Your task to perform on an android device: add a contact Image 0: 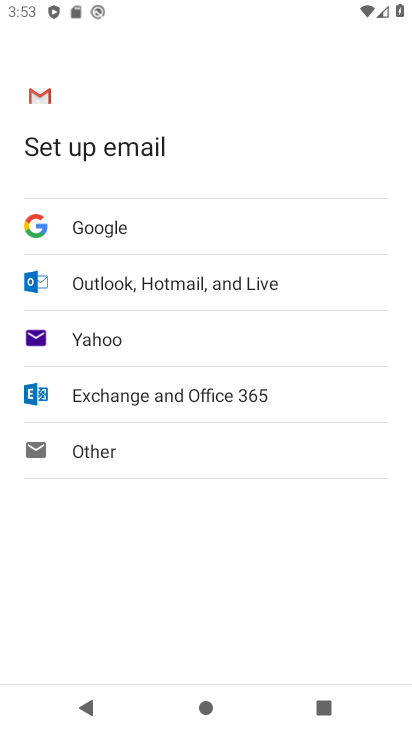
Step 0: press home button
Your task to perform on an android device: add a contact Image 1: 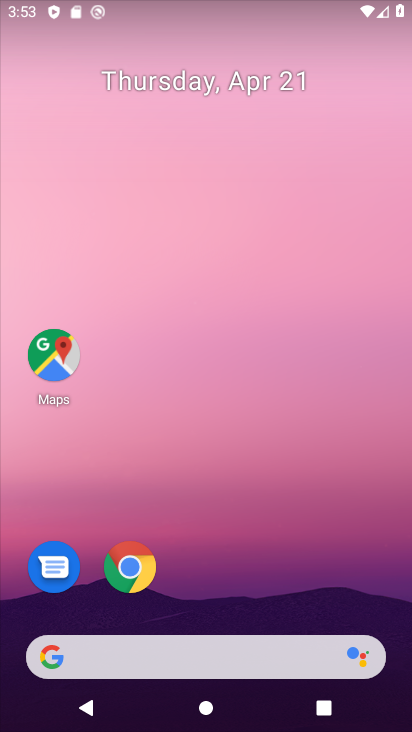
Step 1: drag from (288, 558) to (298, 89)
Your task to perform on an android device: add a contact Image 2: 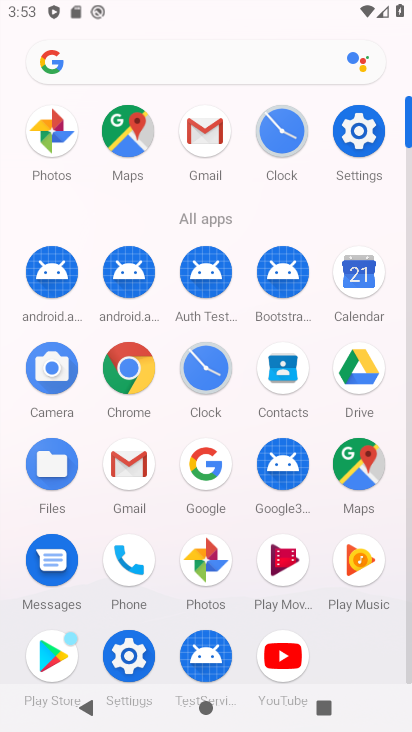
Step 2: drag from (356, 606) to (339, 256)
Your task to perform on an android device: add a contact Image 3: 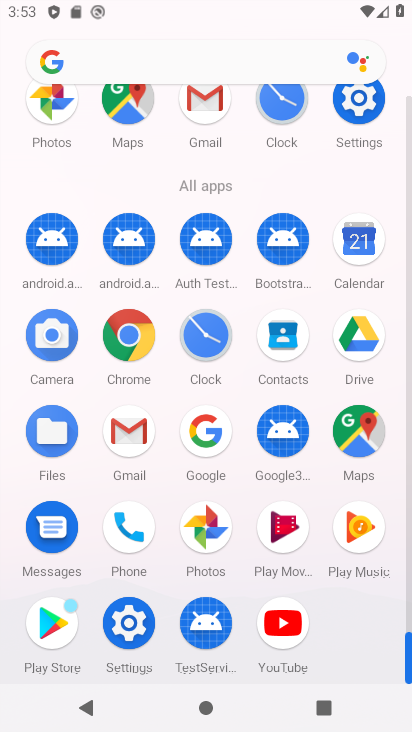
Step 3: click (274, 330)
Your task to perform on an android device: add a contact Image 4: 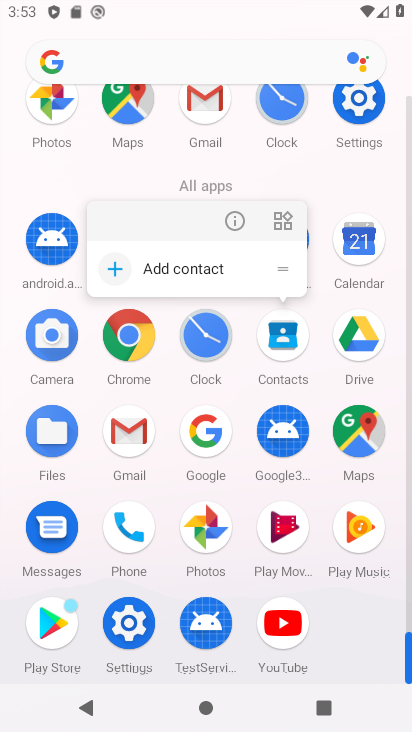
Step 4: click (282, 328)
Your task to perform on an android device: add a contact Image 5: 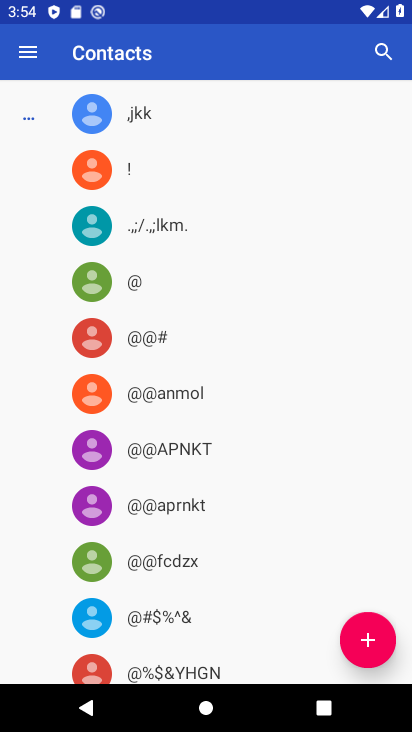
Step 5: click (361, 647)
Your task to perform on an android device: add a contact Image 6: 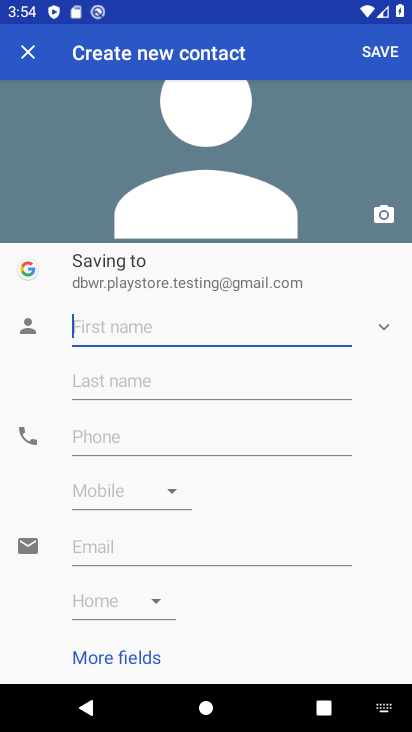
Step 6: click (141, 322)
Your task to perform on an android device: add a contact Image 7: 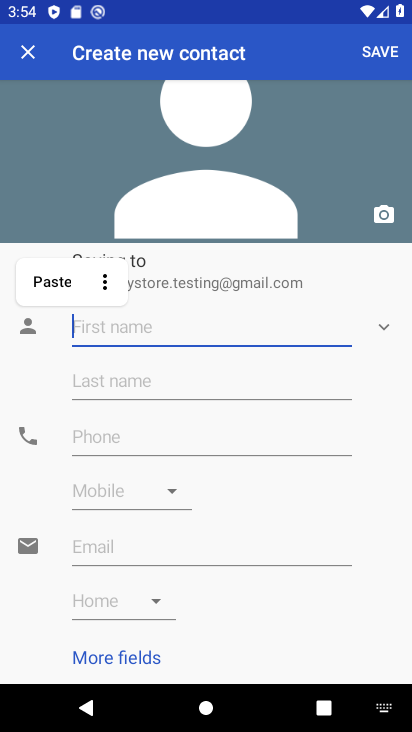
Step 7: type "dfghjk"
Your task to perform on an android device: add a contact Image 8: 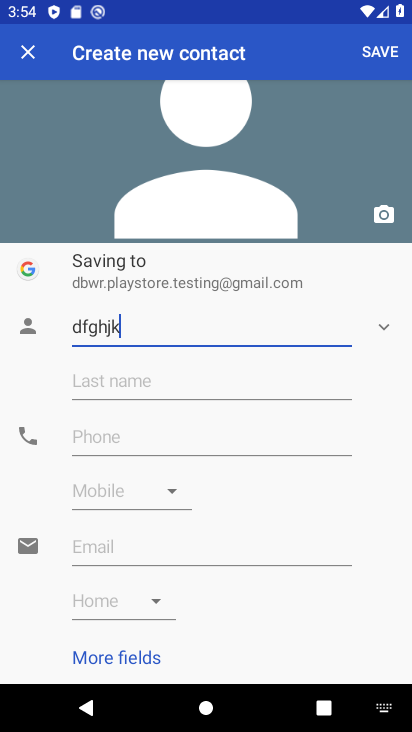
Step 8: click (102, 441)
Your task to perform on an android device: add a contact Image 9: 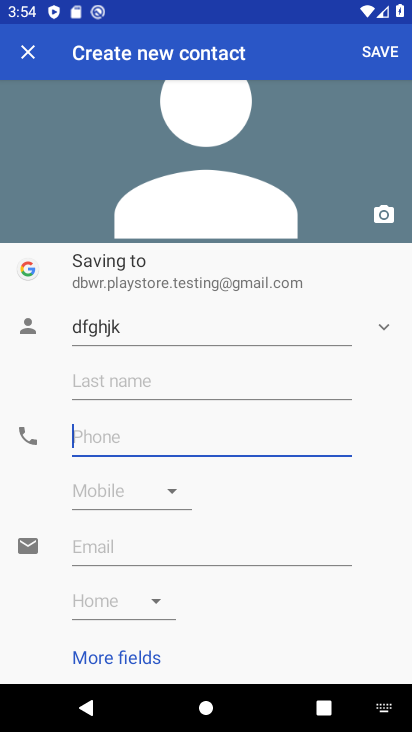
Step 9: click (102, 441)
Your task to perform on an android device: add a contact Image 10: 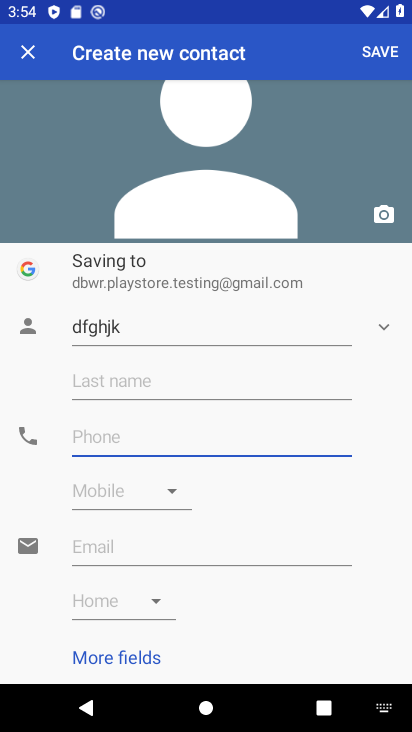
Step 10: click (102, 441)
Your task to perform on an android device: add a contact Image 11: 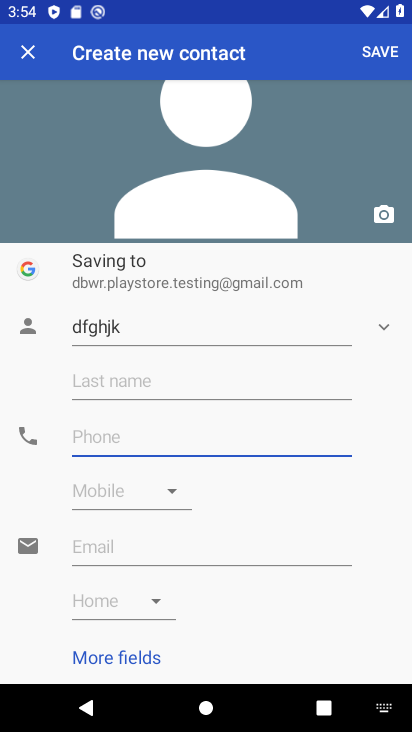
Step 11: type "87654"
Your task to perform on an android device: add a contact Image 12: 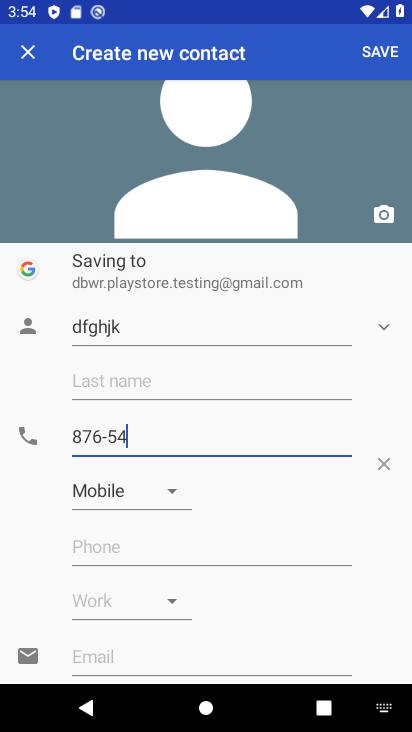
Step 12: click (368, 51)
Your task to perform on an android device: add a contact Image 13: 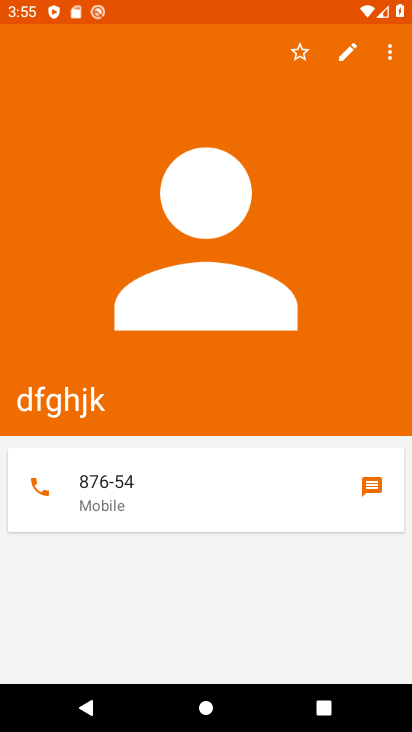
Step 13: task complete